Your task to perform on an android device: Open eBay Image 0: 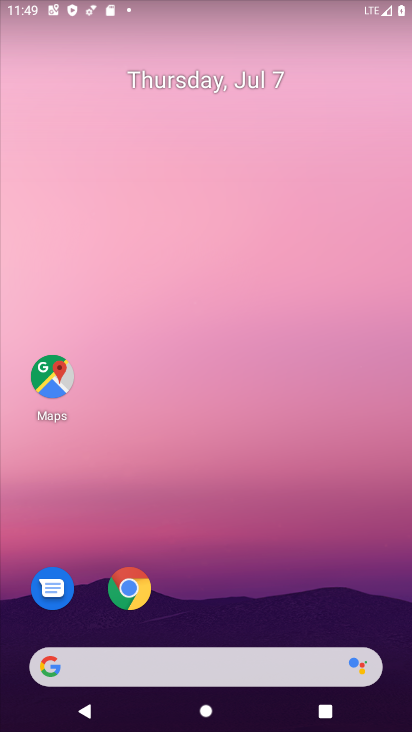
Step 0: drag from (244, 600) to (266, 59)
Your task to perform on an android device: Open eBay Image 1: 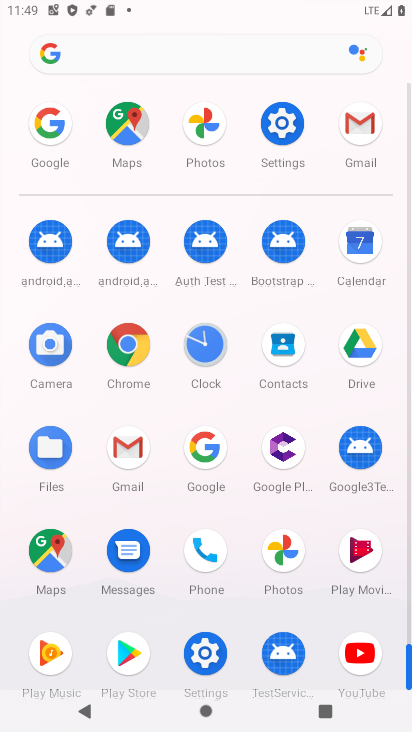
Step 1: click (200, 449)
Your task to perform on an android device: Open eBay Image 2: 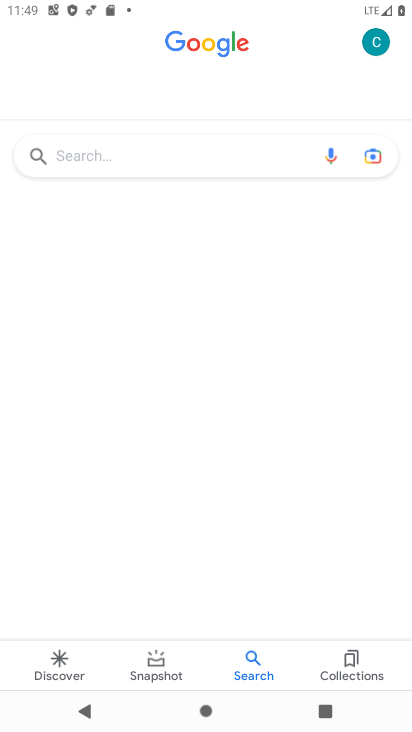
Step 2: click (99, 174)
Your task to perform on an android device: Open eBay Image 3: 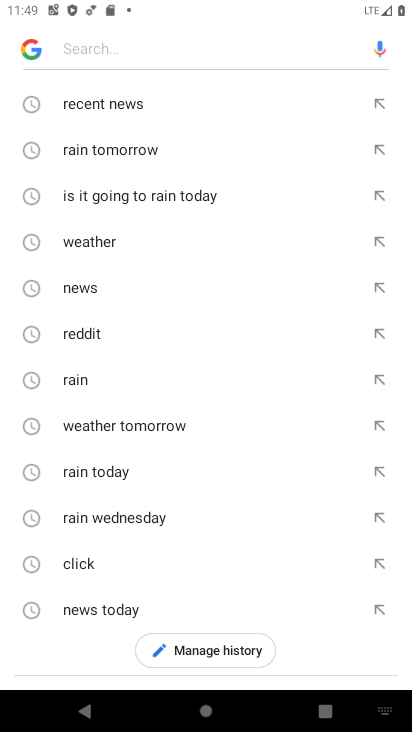
Step 3: type "ebay"
Your task to perform on an android device: Open eBay Image 4: 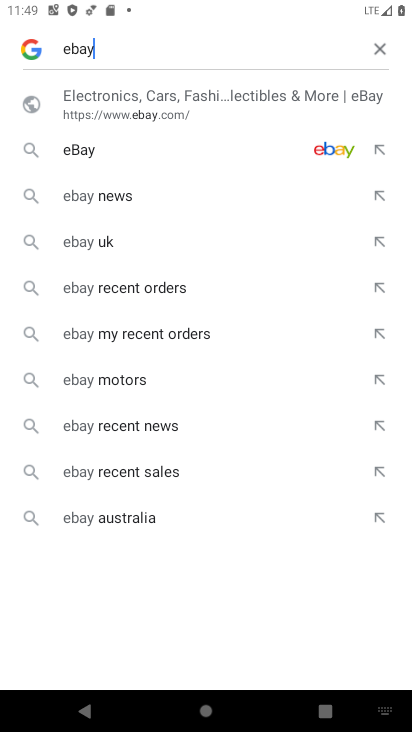
Step 4: click (182, 152)
Your task to perform on an android device: Open eBay Image 5: 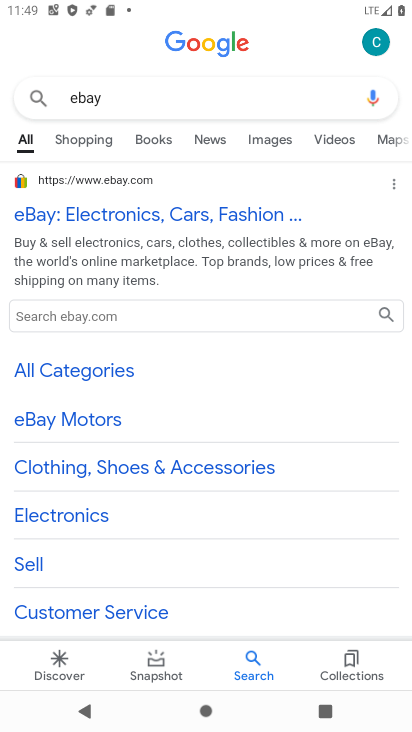
Step 5: click (233, 209)
Your task to perform on an android device: Open eBay Image 6: 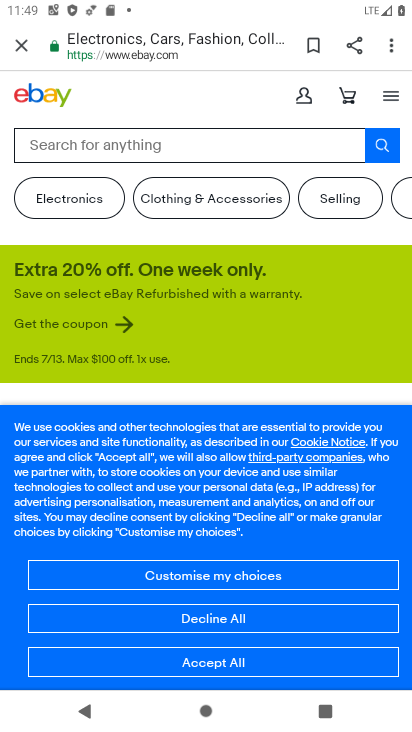
Step 6: task complete